Your task to perform on an android device: Search for Mexican restaurants on Maps Image 0: 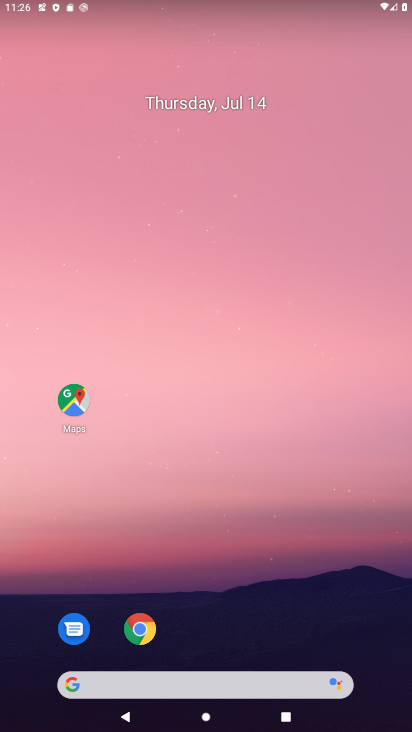
Step 0: click (68, 405)
Your task to perform on an android device: Search for Mexican restaurants on Maps Image 1: 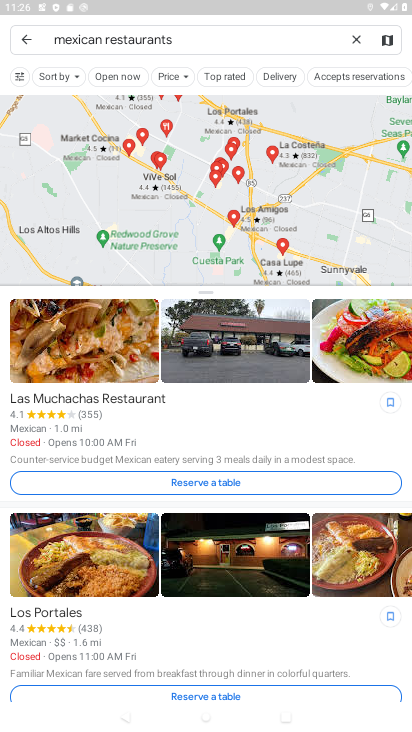
Step 1: press home button
Your task to perform on an android device: Search for Mexican restaurants on Maps Image 2: 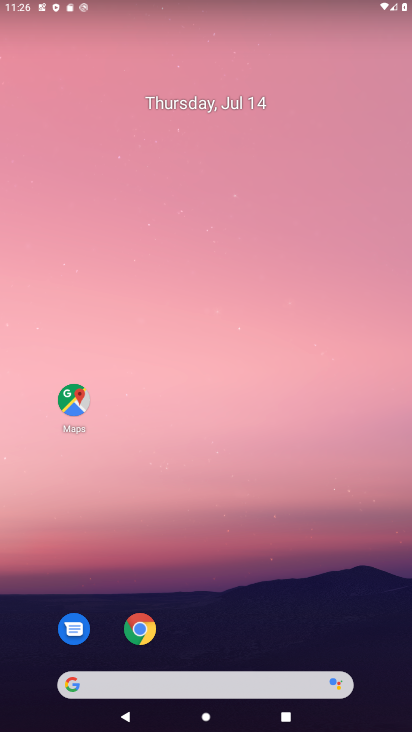
Step 2: click (71, 402)
Your task to perform on an android device: Search for Mexican restaurants on Maps Image 3: 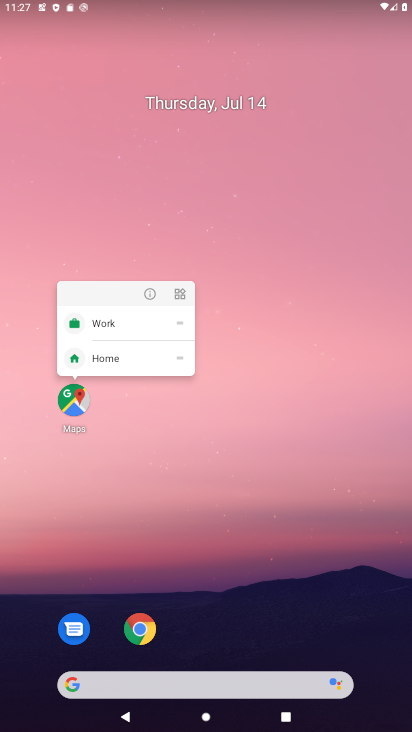
Step 3: click (75, 408)
Your task to perform on an android device: Search for Mexican restaurants on Maps Image 4: 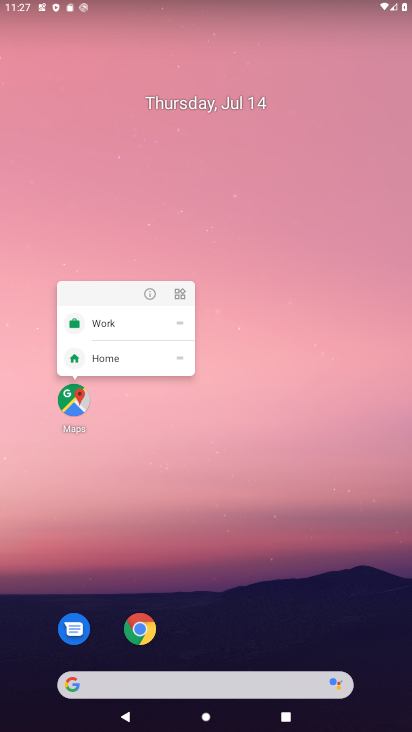
Step 4: click (68, 401)
Your task to perform on an android device: Search for Mexican restaurants on Maps Image 5: 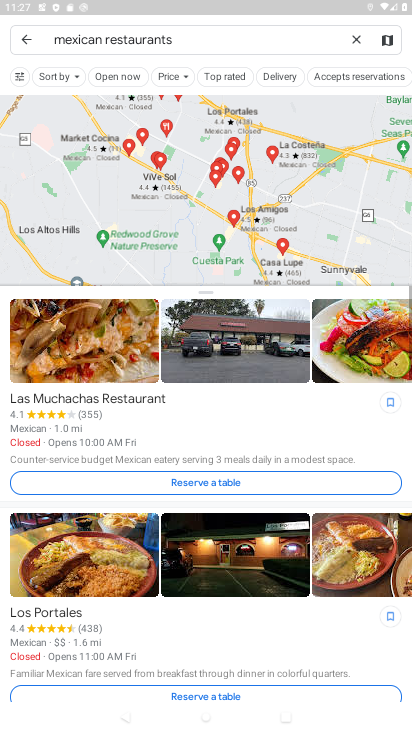
Step 5: task complete